Your task to perform on an android device: Open the map Image 0: 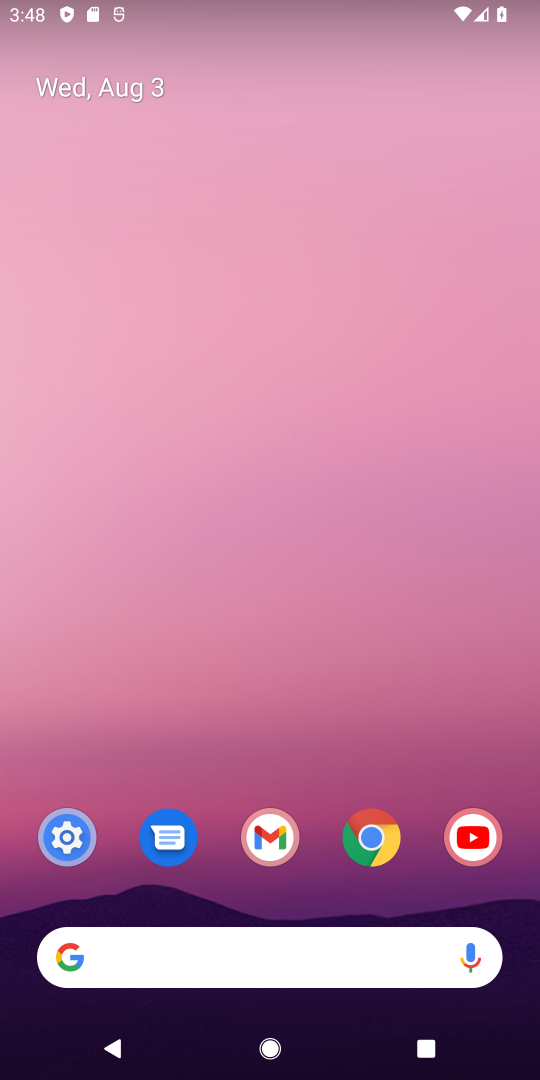
Step 0: drag from (427, 893) to (393, 69)
Your task to perform on an android device: Open the map Image 1: 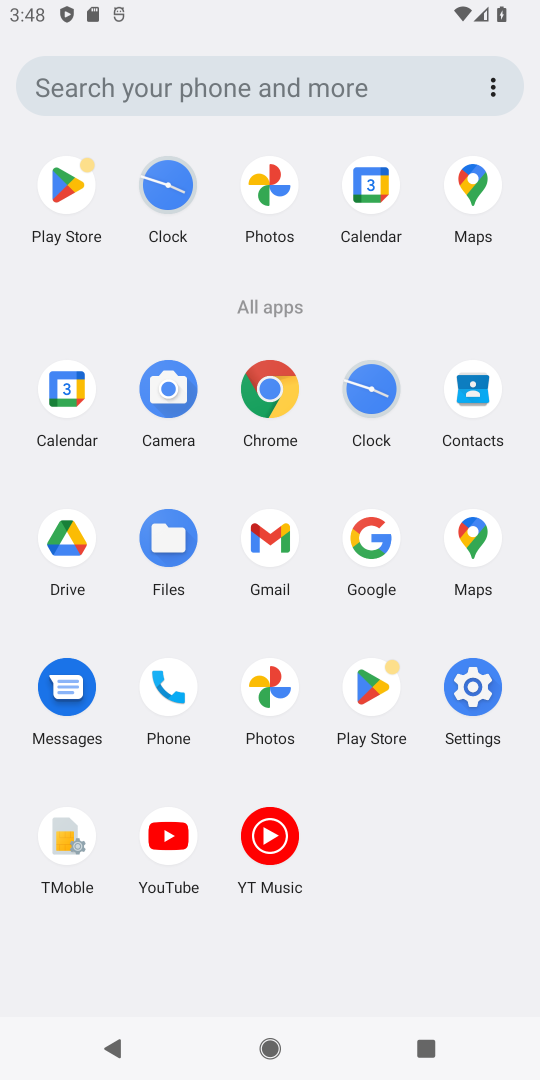
Step 1: click (473, 536)
Your task to perform on an android device: Open the map Image 2: 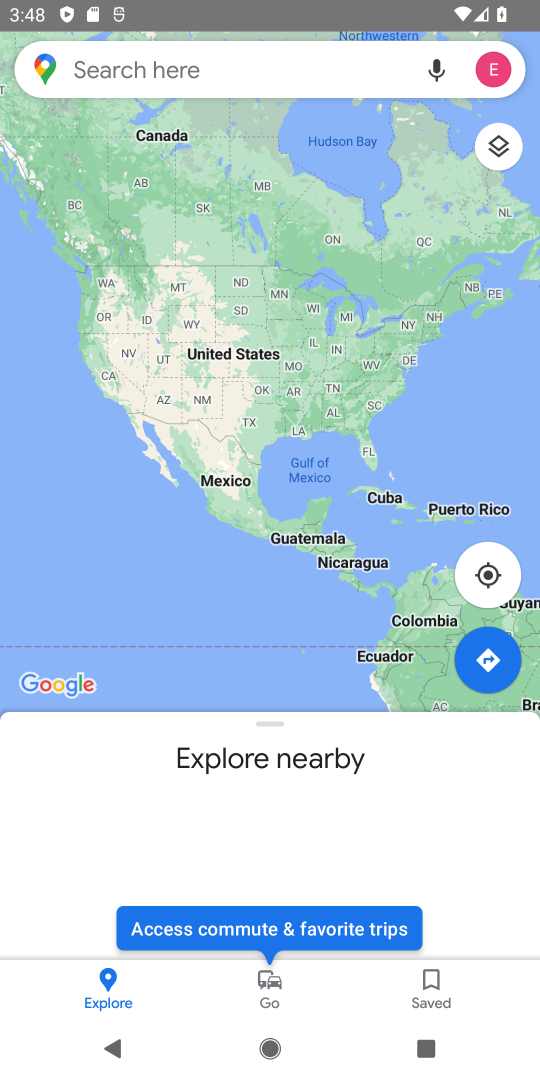
Step 2: task complete